Your task to perform on an android device: Open Google Image 0: 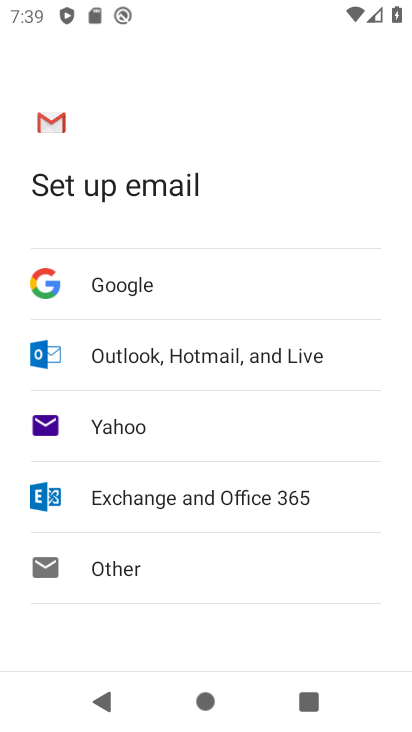
Step 0: press home button
Your task to perform on an android device: Open Google Image 1: 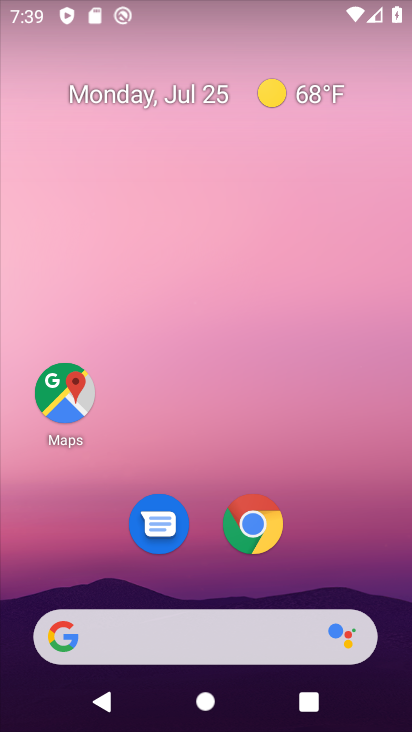
Step 1: click (66, 634)
Your task to perform on an android device: Open Google Image 2: 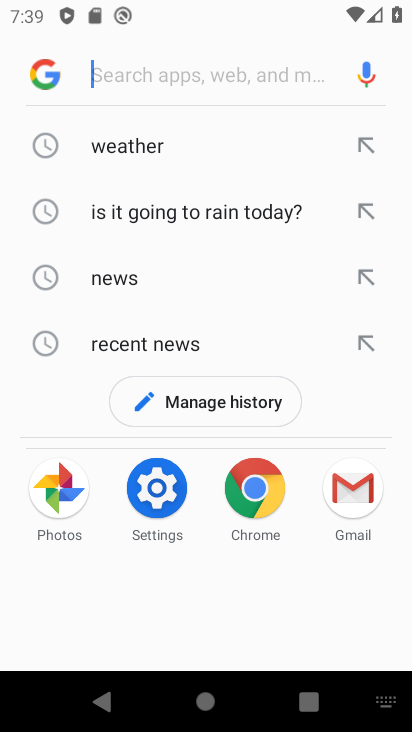
Step 2: click (38, 79)
Your task to perform on an android device: Open Google Image 3: 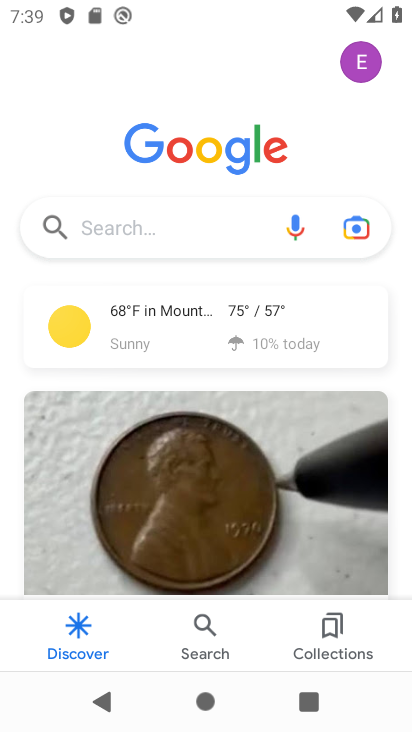
Step 3: click (251, 142)
Your task to perform on an android device: Open Google Image 4: 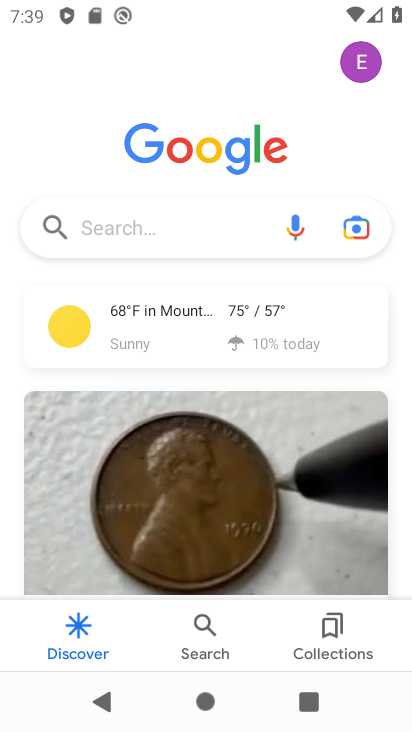
Step 4: task complete